Your task to perform on an android device: change the upload size in google photos Image 0: 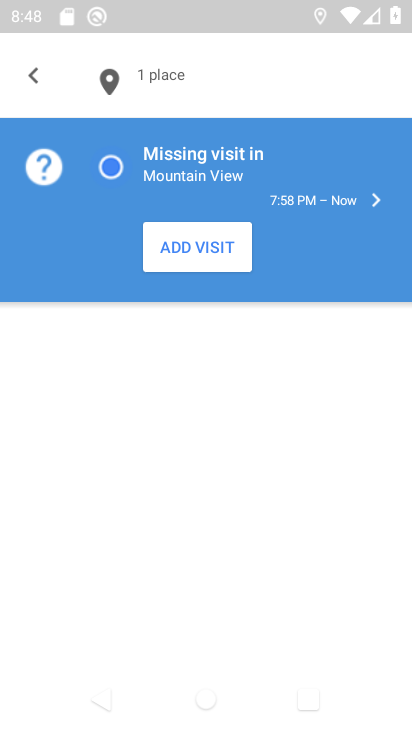
Step 0: drag from (266, 628) to (347, 271)
Your task to perform on an android device: change the upload size in google photos Image 1: 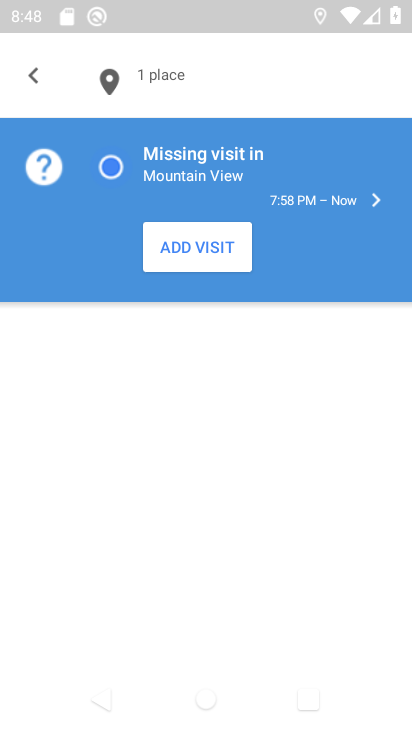
Step 1: click (242, 530)
Your task to perform on an android device: change the upload size in google photos Image 2: 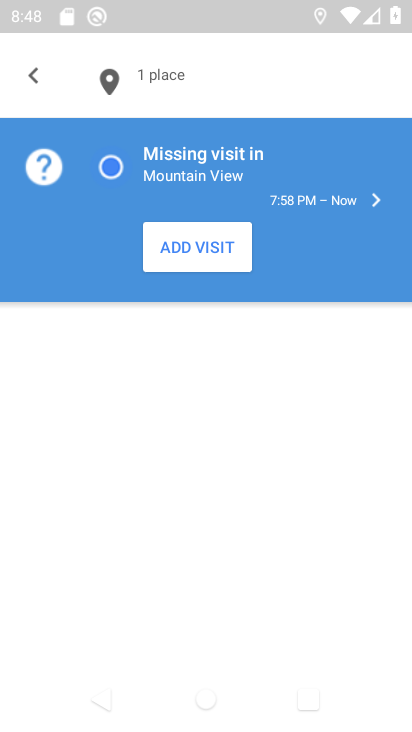
Step 2: drag from (195, 498) to (244, 330)
Your task to perform on an android device: change the upload size in google photos Image 3: 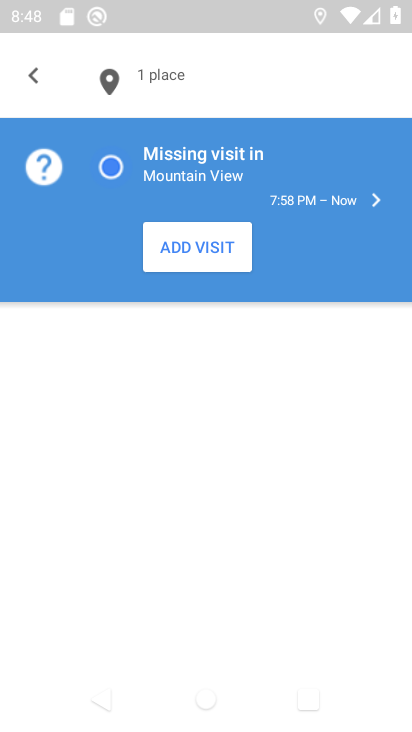
Step 3: drag from (253, 489) to (306, 312)
Your task to perform on an android device: change the upload size in google photos Image 4: 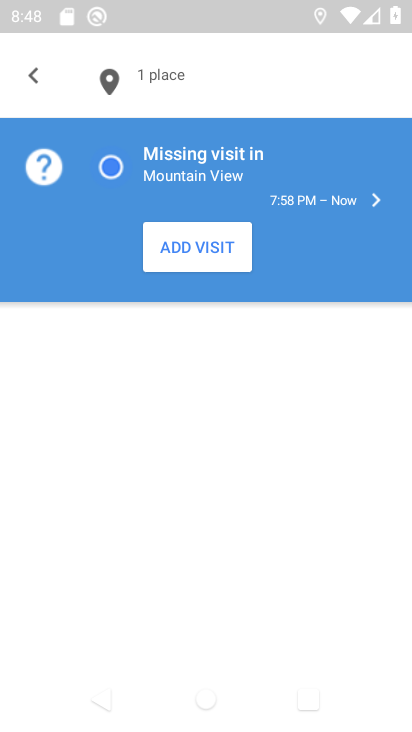
Step 4: drag from (326, 423) to (374, 227)
Your task to perform on an android device: change the upload size in google photos Image 5: 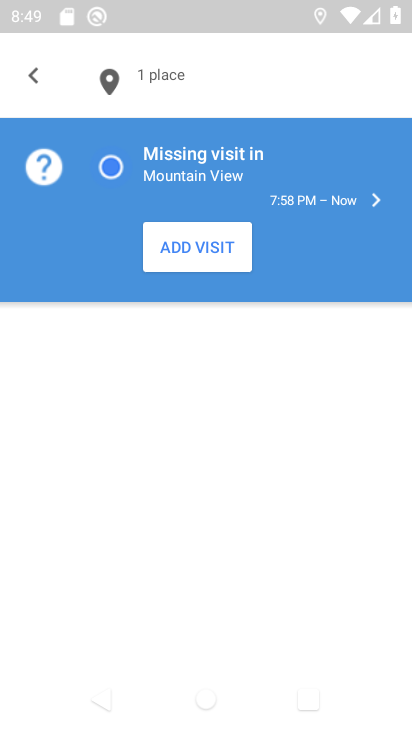
Step 5: press home button
Your task to perform on an android device: change the upload size in google photos Image 6: 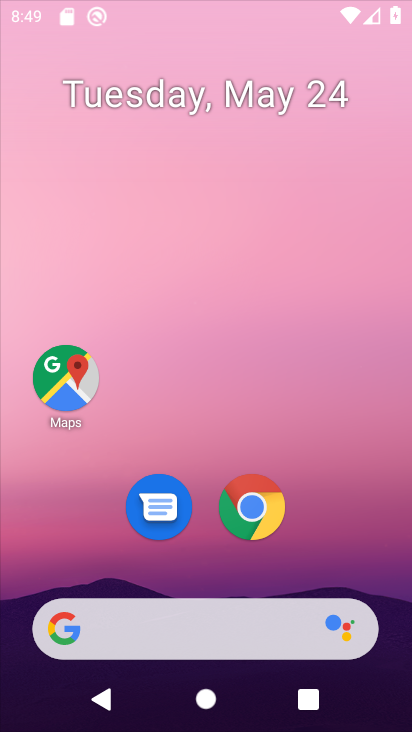
Step 6: drag from (296, 608) to (195, 20)
Your task to perform on an android device: change the upload size in google photos Image 7: 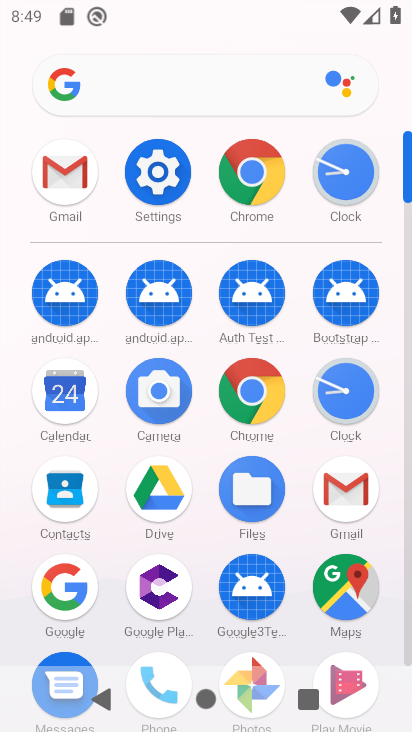
Step 7: click (246, 656)
Your task to perform on an android device: change the upload size in google photos Image 8: 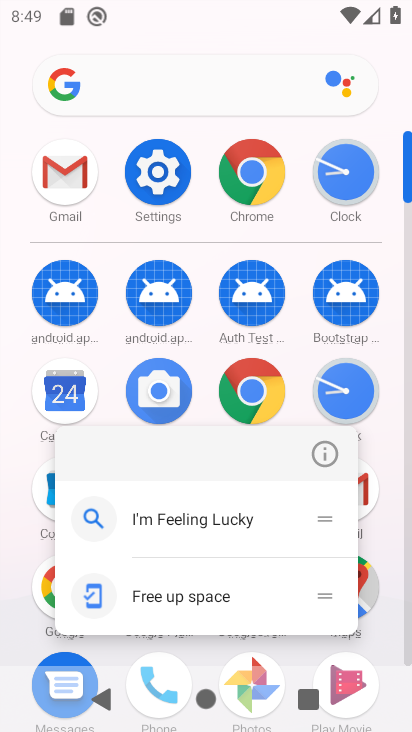
Step 8: click (327, 450)
Your task to perform on an android device: change the upload size in google photos Image 9: 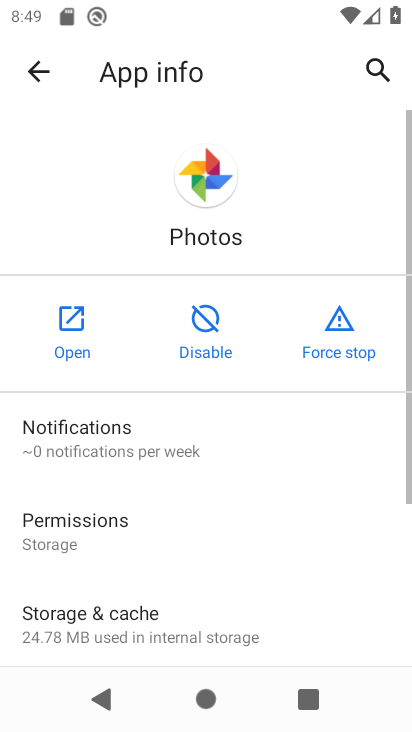
Step 9: click (85, 301)
Your task to perform on an android device: change the upload size in google photos Image 10: 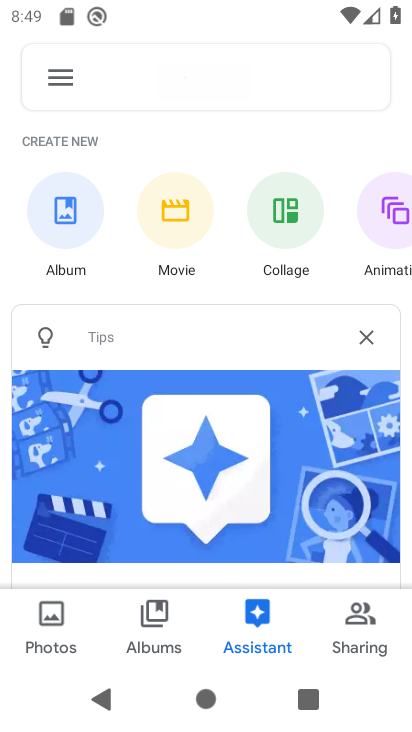
Step 10: drag from (243, 486) to (291, 138)
Your task to perform on an android device: change the upload size in google photos Image 11: 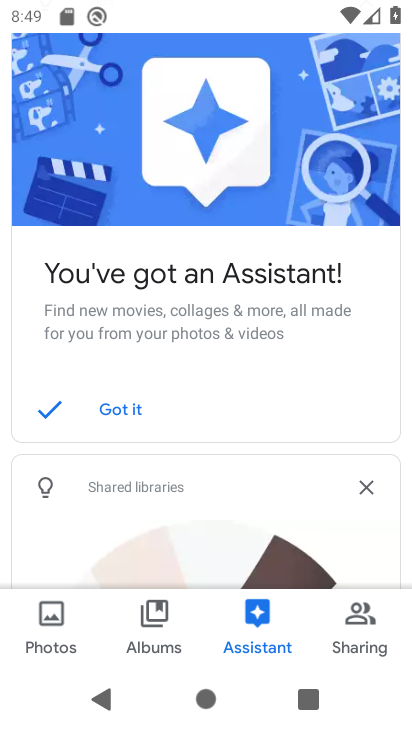
Step 11: drag from (258, 214) to (282, 674)
Your task to perform on an android device: change the upload size in google photos Image 12: 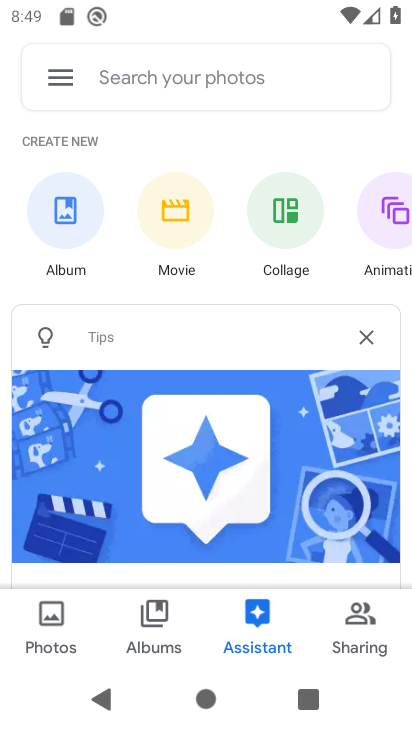
Step 12: click (58, 92)
Your task to perform on an android device: change the upload size in google photos Image 13: 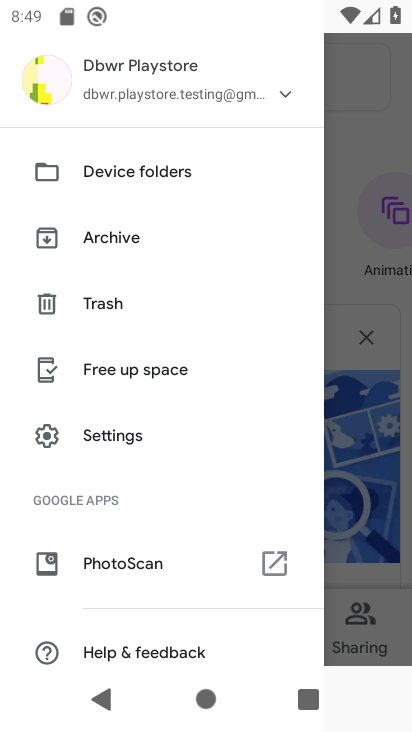
Step 13: click (126, 428)
Your task to perform on an android device: change the upload size in google photos Image 14: 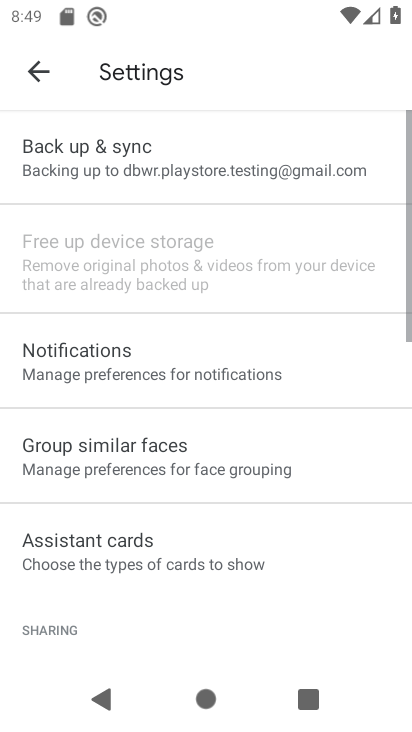
Step 14: drag from (160, 542) to (234, 242)
Your task to perform on an android device: change the upload size in google photos Image 15: 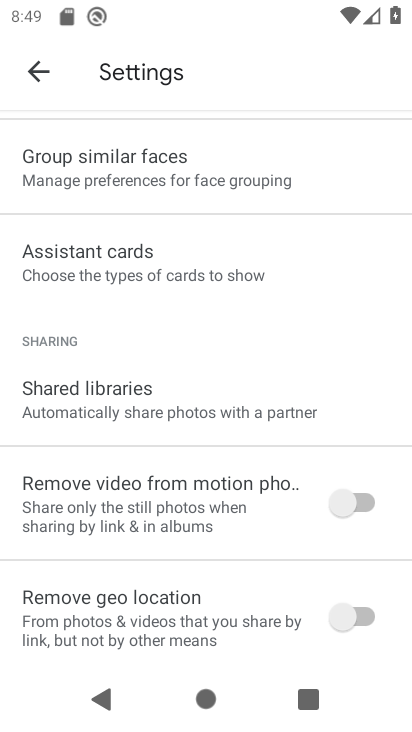
Step 15: drag from (177, 517) to (246, 175)
Your task to perform on an android device: change the upload size in google photos Image 16: 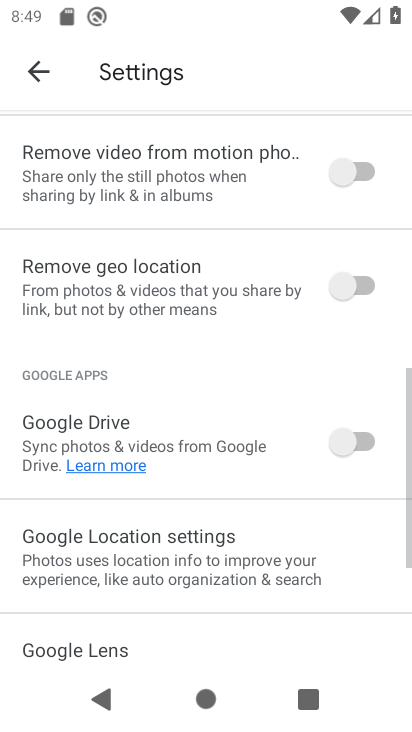
Step 16: drag from (261, 127) to (189, 724)
Your task to perform on an android device: change the upload size in google photos Image 17: 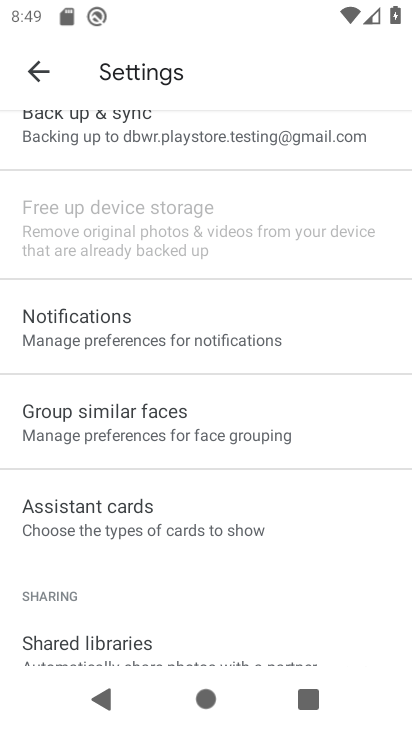
Step 17: click (149, 151)
Your task to perform on an android device: change the upload size in google photos Image 18: 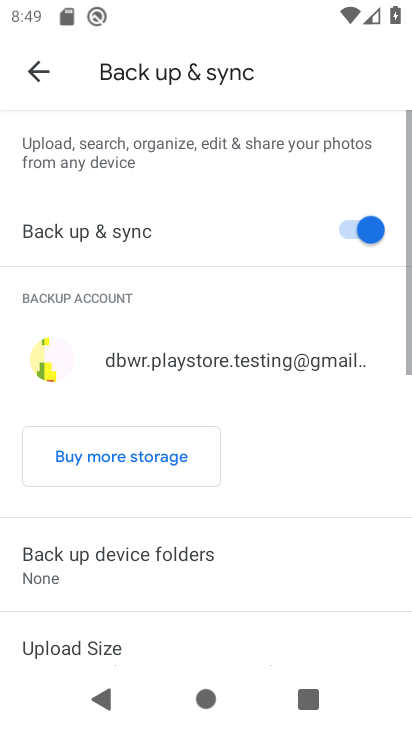
Step 18: drag from (213, 457) to (227, 68)
Your task to perform on an android device: change the upload size in google photos Image 19: 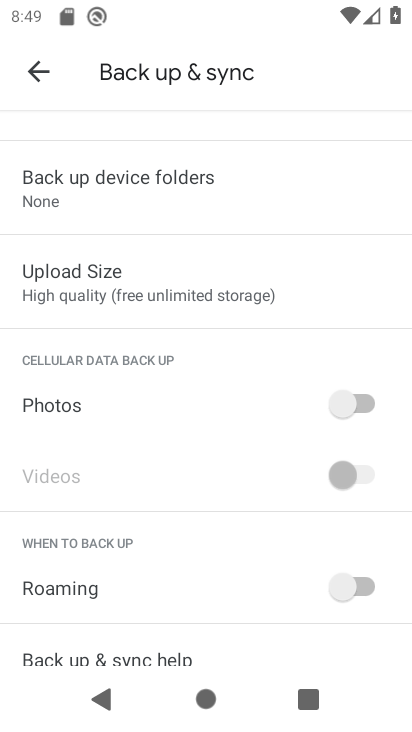
Step 19: click (130, 280)
Your task to perform on an android device: change the upload size in google photos Image 20: 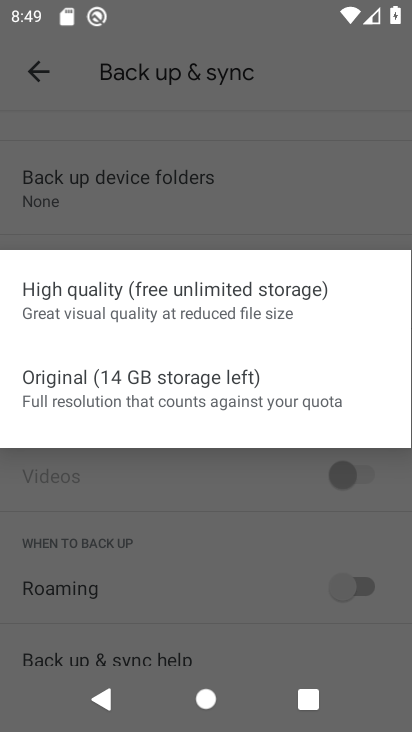
Step 20: click (168, 312)
Your task to perform on an android device: change the upload size in google photos Image 21: 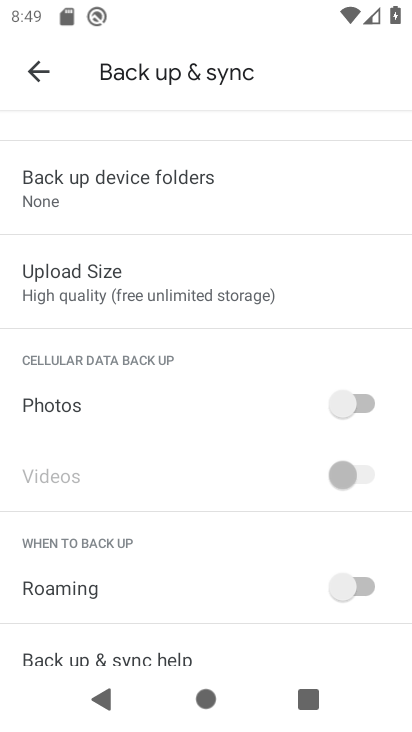
Step 21: task complete